Your task to perform on an android device: What's the news in Sri Lanka? Image 0: 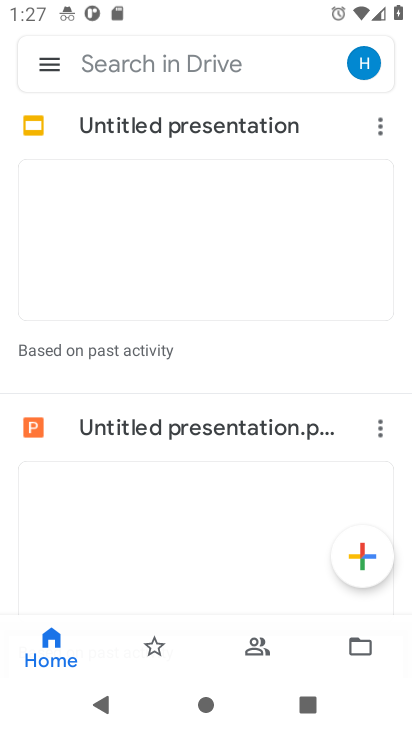
Step 0: press home button
Your task to perform on an android device: What's the news in Sri Lanka? Image 1: 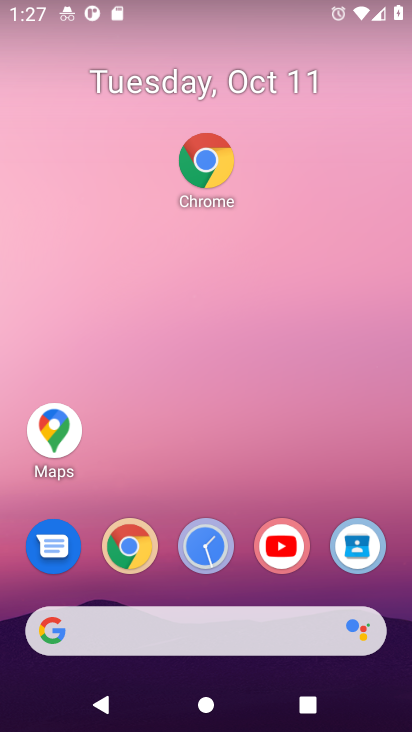
Step 1: click (215, 164)
Your task to perform on an android device: What's the news in Sri Lanka? Image 2: 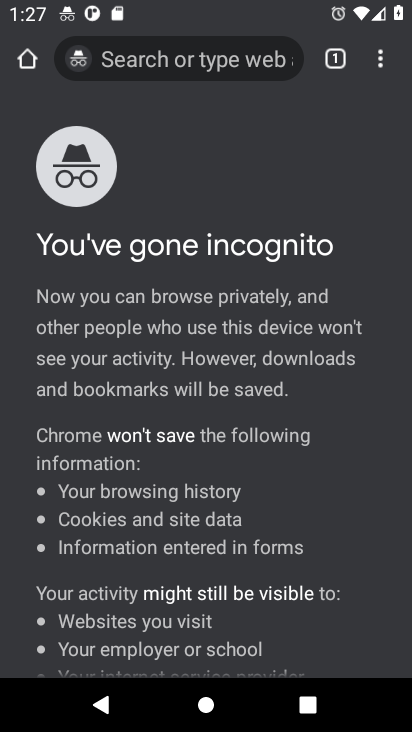
Step 2: click (335, 61)
Your task to perform on an android device: What's the news in Sri Lanka? Image 3: 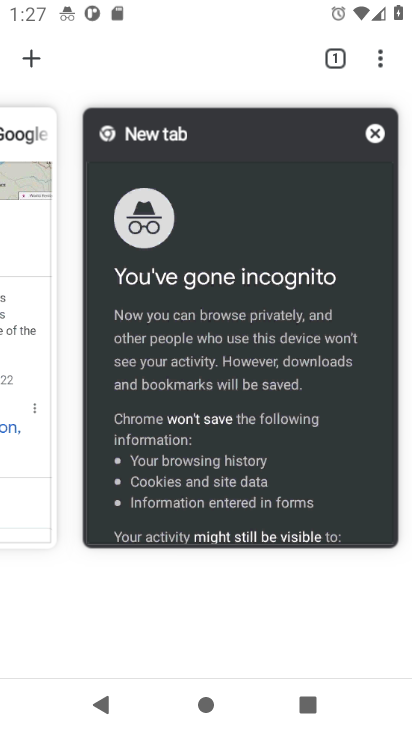
Step 3: click (377, 133)
Your task to perform on an android device: What's the news in Sri Lanka? Image 4: 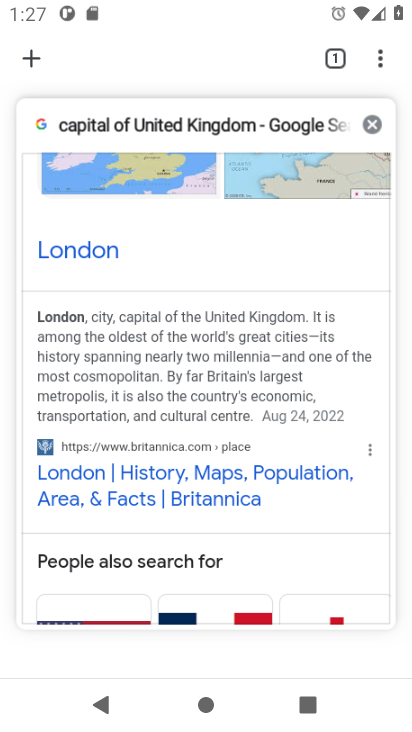
Step 4: click (376, 121)
Your task to perform on an android device: What's the news in Sri Lanka? Image 5: 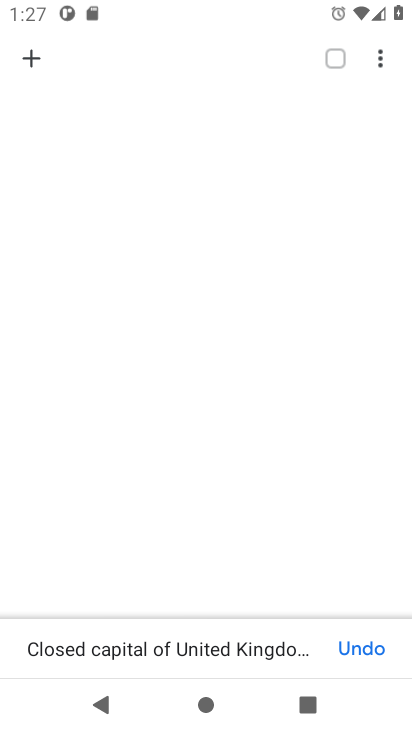
Step 5: click (37, 60)
Your task to perform on an android device: What's the news in Sri Lanka? Image 6: 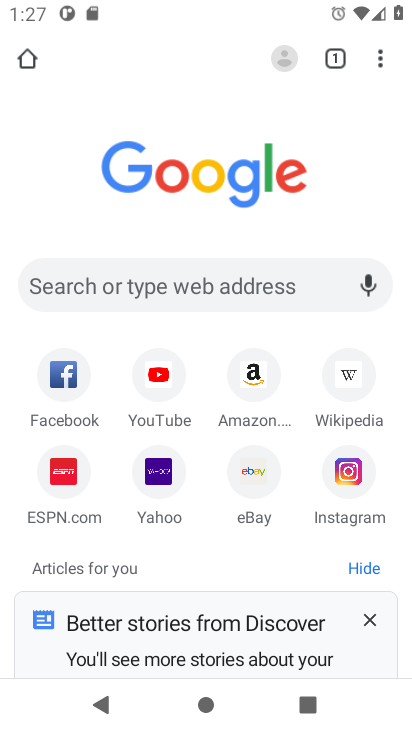
Step 6: click (245, 299)
Your task to perform on an android device: What's the news in Sri Lanka? Image 7: 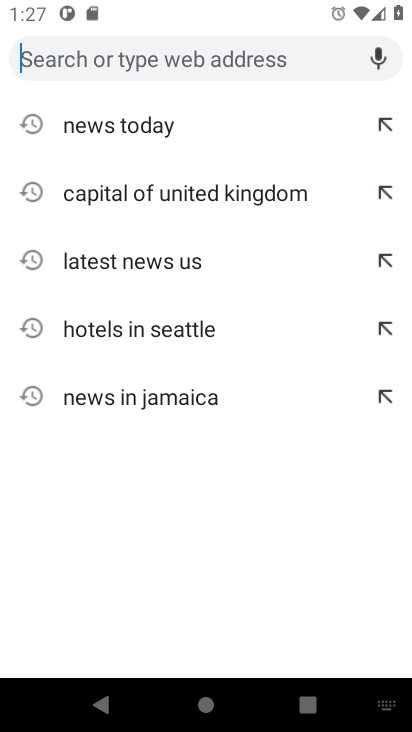
Step 7: type "news in Sri Lanka"
Your task to perform on an android device: What's the news in Sri Lanka? Image 8: 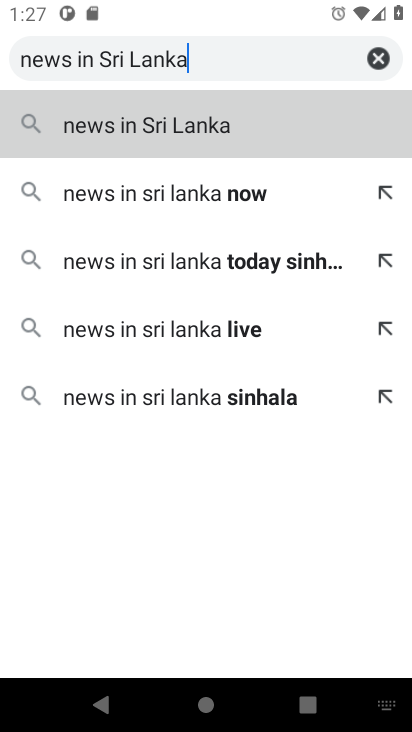
Step 8: type ""
Your task to perform on an android device: What's the news in Sri Lanka? Image 9: 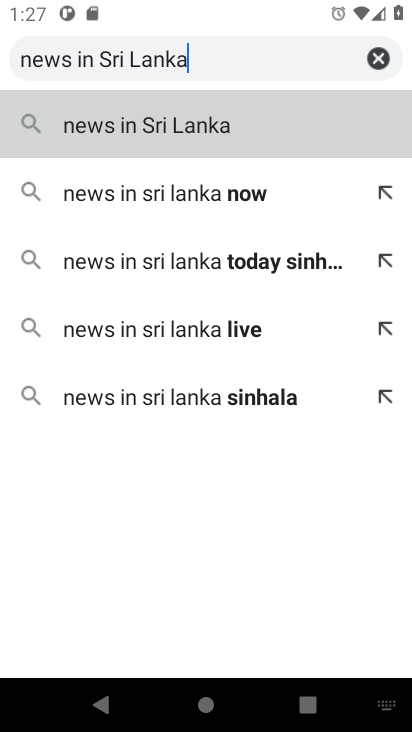
Step 9: press enter
Your task to perform on an android device: What's the news in Sri Lanka? Image 10: 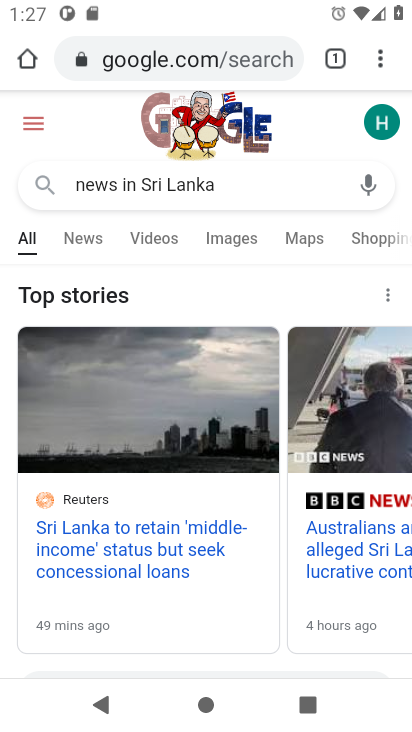
Step 10: drag from (261, 579) to (291, 274)
Your task to perform on an android device: What's the news in Sri Lanka? Image 11: 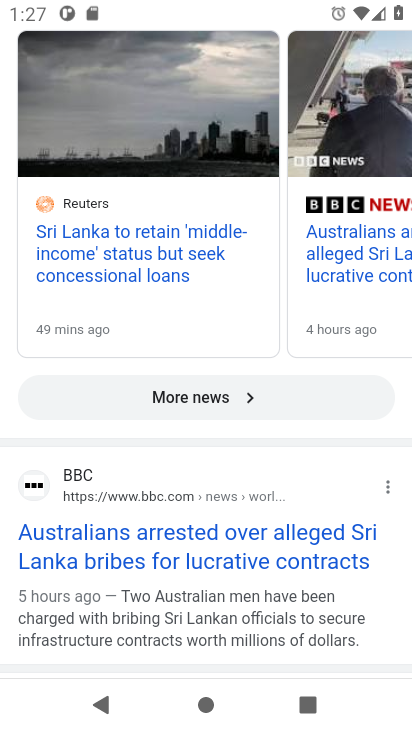
Step 11: drag from (256, 528) to (260, 263)
Your task to perform on an android device: What's the news in Sri Lanka? Image 12: 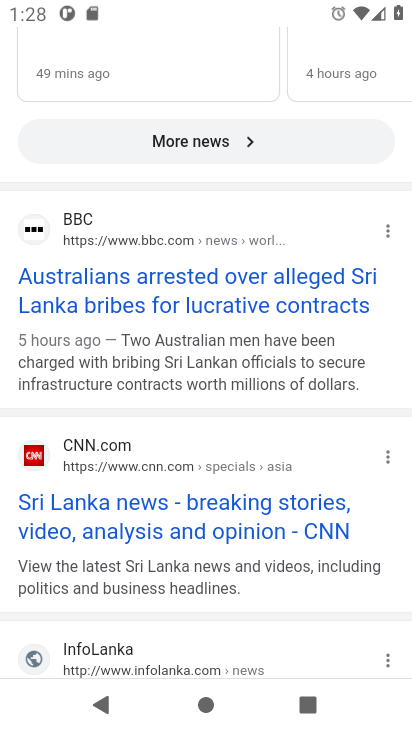
Step 12: drag from (283, 367) to (286, 228)
Your task to perform on an android device: What's the news in Sri Lanka? Image 13: 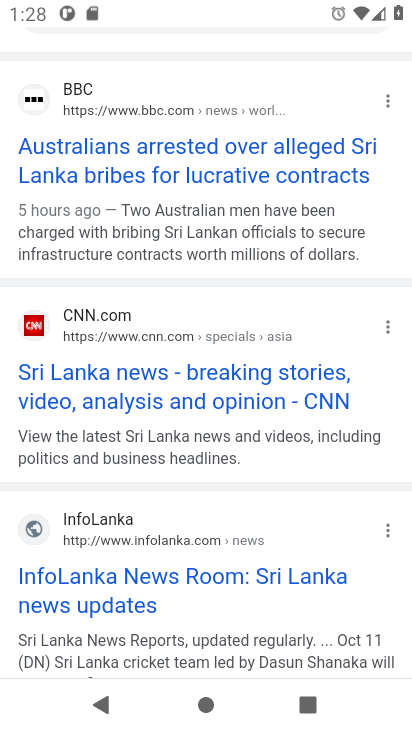
Step 13: drag from (336, 350) to (343, 143)
Your task to perform on an android device: What's the news in Sri Lanka? Image 14: 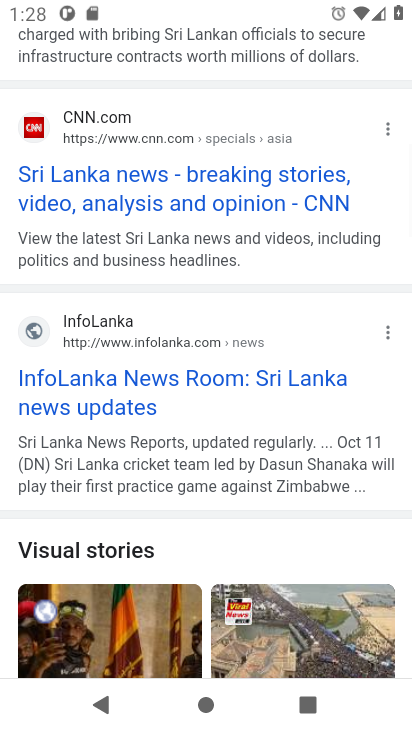
Step 14: drag from (293, 288) to (299, 152)
Your task to perform on an android device: What's the news in Sri Lanka? Image 15: 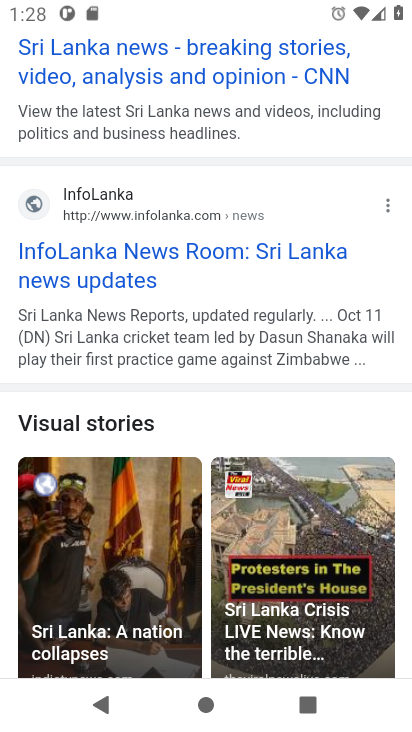
Step 15: drag from (360, 298) to (349, 134)
Your task to perform on an android device: What's the news in Sri Lanka? Image 16: 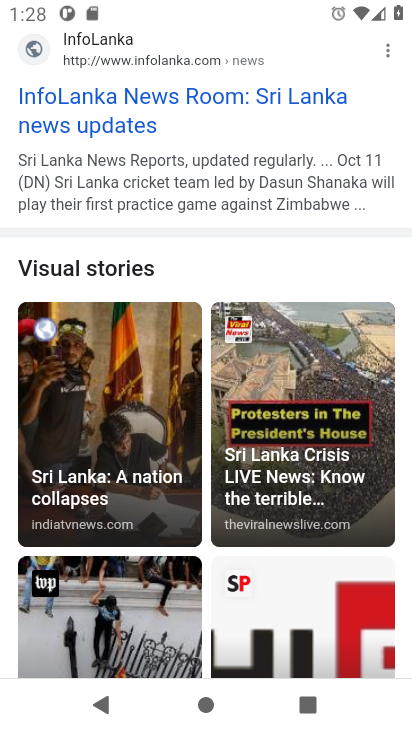
Step 16: drag from (185, 387) to (185, 230)
Your task to perform on an android device: What's the news in Sri Lanka? Image 17: 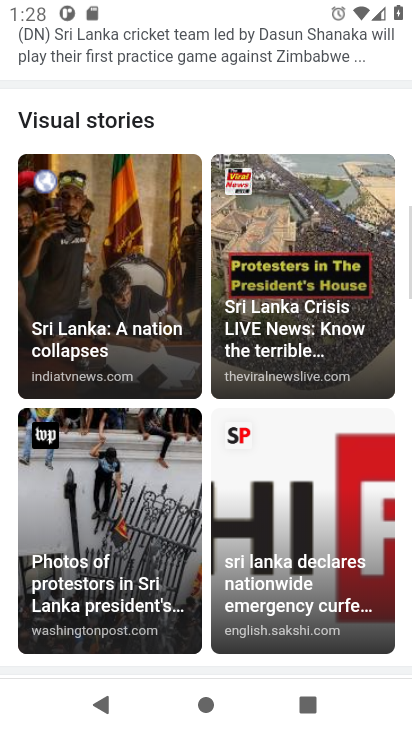
Step 17: drag from (254, 504) to (250, 220)
Your task to perform on an android device: What's the news in Sri Lanka? Image 18: 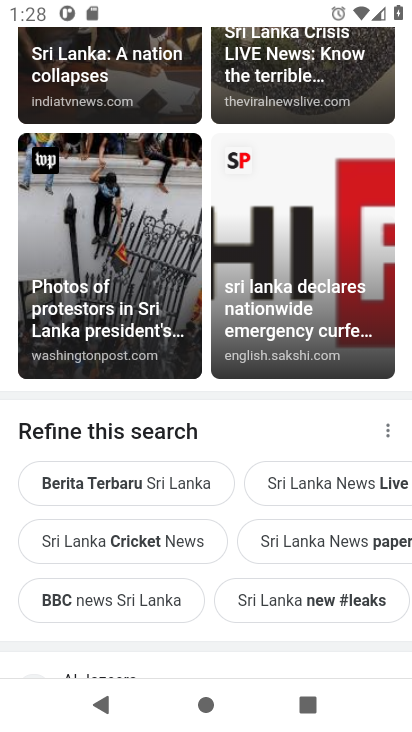
Step 18: drag from (174, 522) to (188, 347)
Your task to perform on an android device: What's the news in Sri Lanka? Image 19: 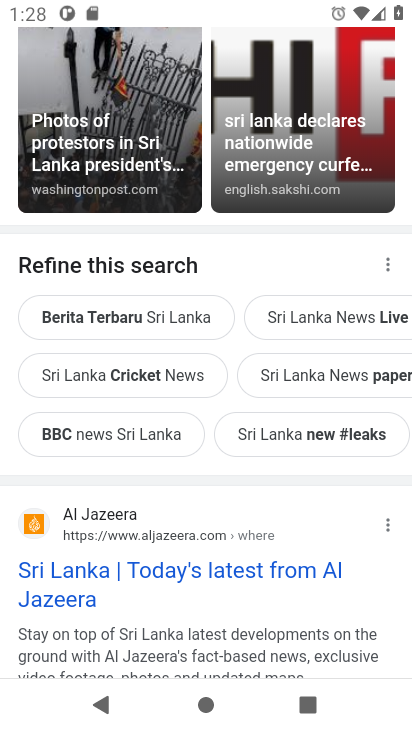
Step 19: drag from (202, 285) to (236, 626)
Your task to perform on an android device: What's the news in Sri Lanka? Image 20: 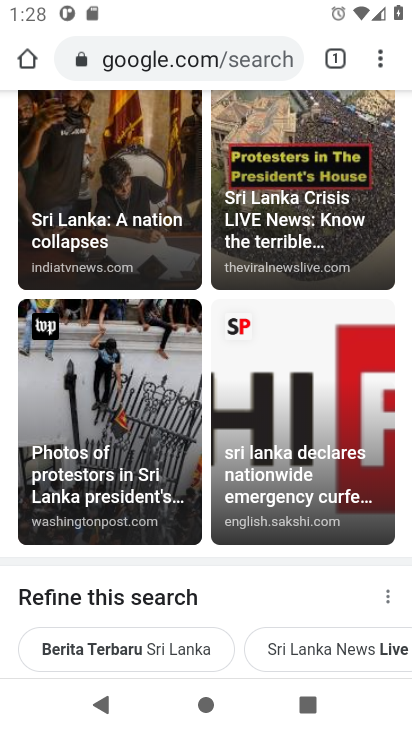
Step 20: drag from (215, 207) to (247, 642)
Your task to perform on an android device: What's the news in Sri Lanka? Image 21: 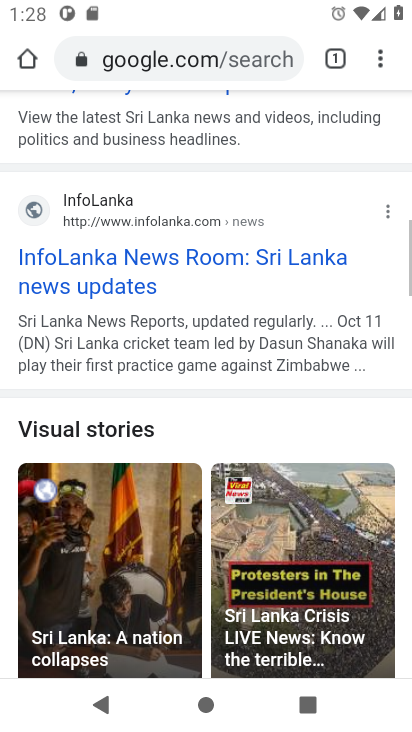
Step 21: drag from (218, 209) to (239, 615)
Your task to perform on an android device: What's the news in Sri Lanka? Image 22: 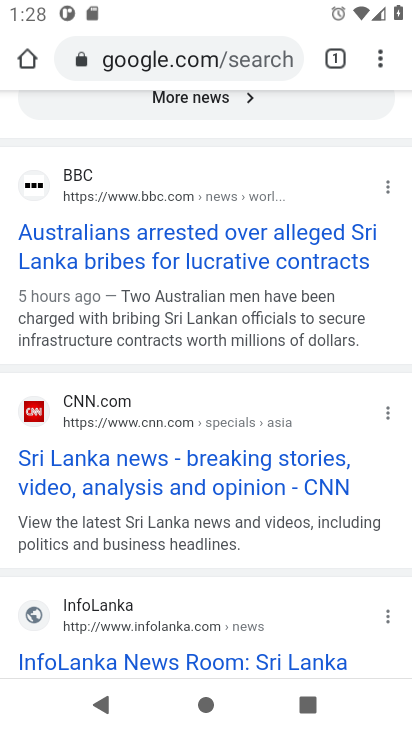
Step 22: drag from (243, 207) to (285, 505)
Your task to perform on an android device: What's the news in Sri Lanka? Image 23: 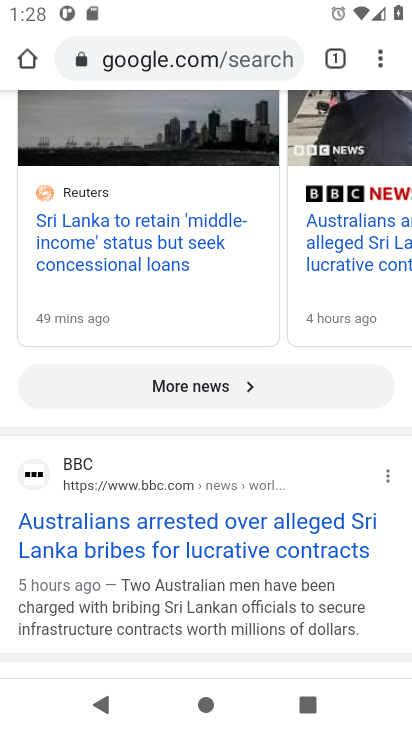
Step 23: drag from (209, 208) to (232, 539)
Your task to perform on an android device: What's the news in Sri Lanka? Image 24: 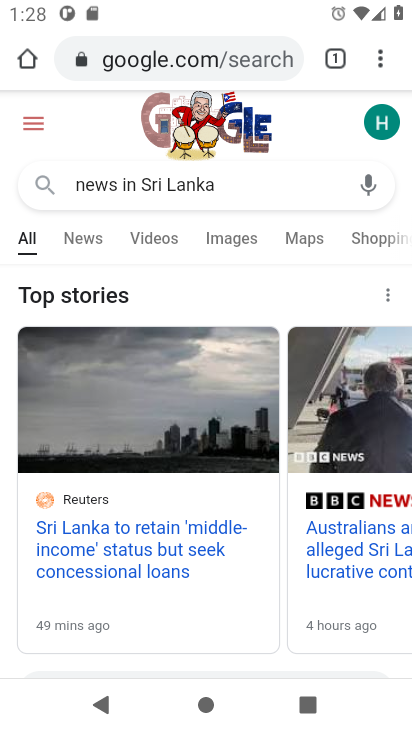
Step 24: drag from (219, 182) to (233, 560)
Your task to perform on an android device: What's the news in Sri Lanka? Image 25: 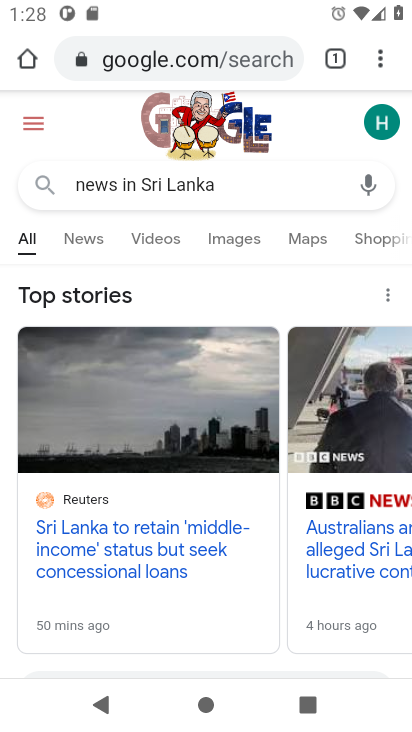
Step 25: click (72, 247)
Your task to perform on an android device: What's the news in Sri Lanka? Image 26: 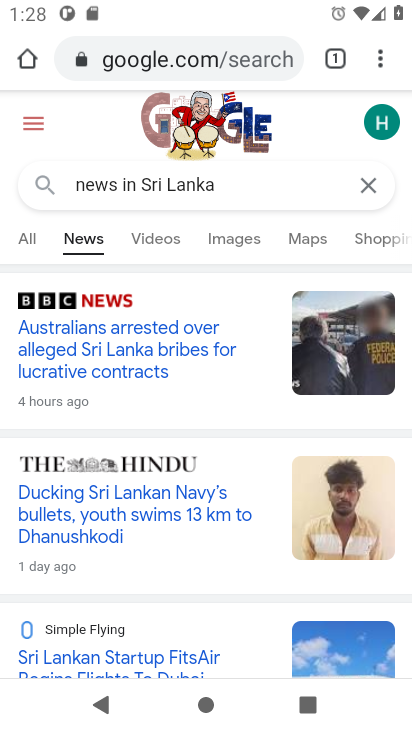
Step 26: task complete